Your task to perform on an android device: Open notification settings Image 0: 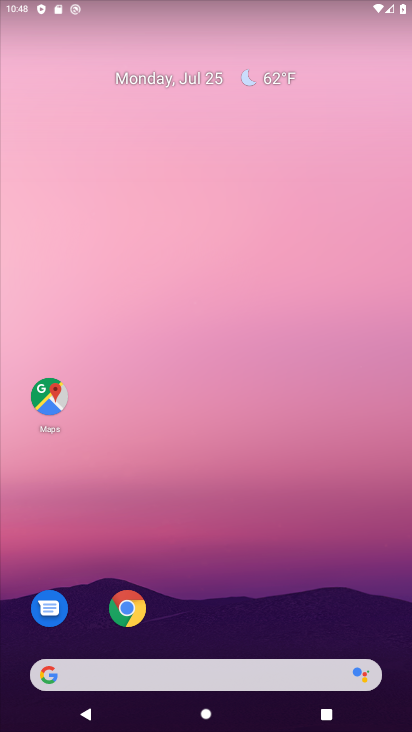
Step 0: drag from (255, 671) to (194, 313)
Your task to perform on an android device: Open notification settings Image 1: 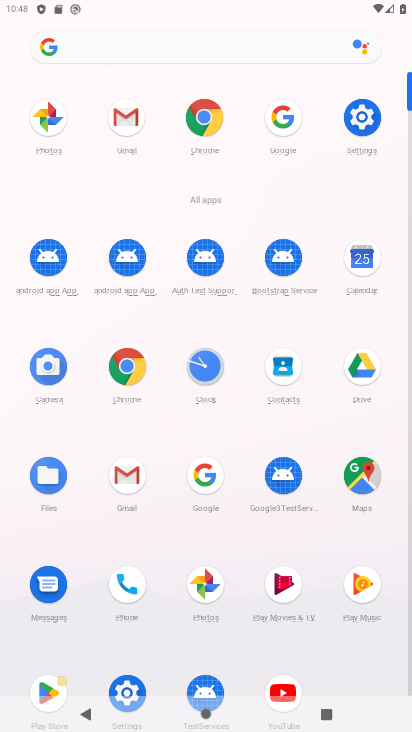
Step 1: click (369, 117)
Your task to perform on an android device: Open notification settings Image 2: 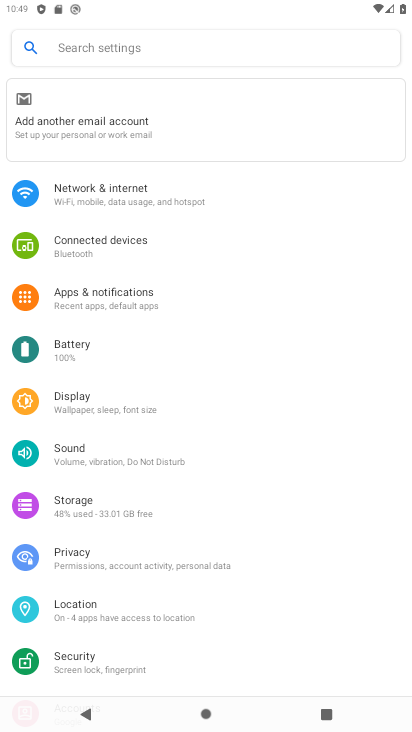
Step 2: click (85, 300)
Your task to perform on an android device: Open notification settings Image 3: 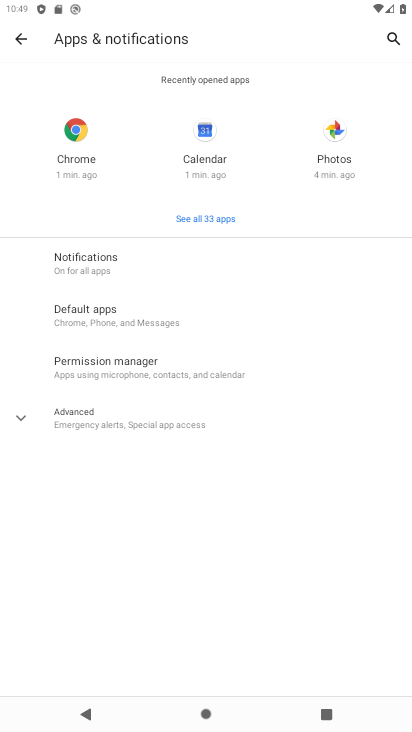
Step 3: click (92, 414)
Your task to perform on an android device: Open notification settings Image 4: 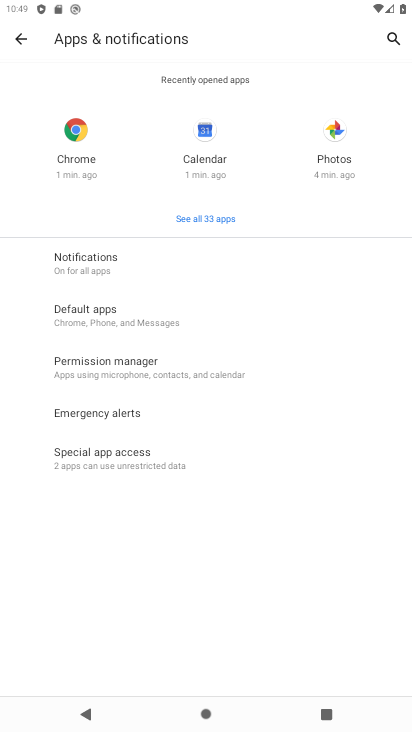
Step 4: click (80, 269)
Your task to perform on an android device: Open notification settings Image 5: 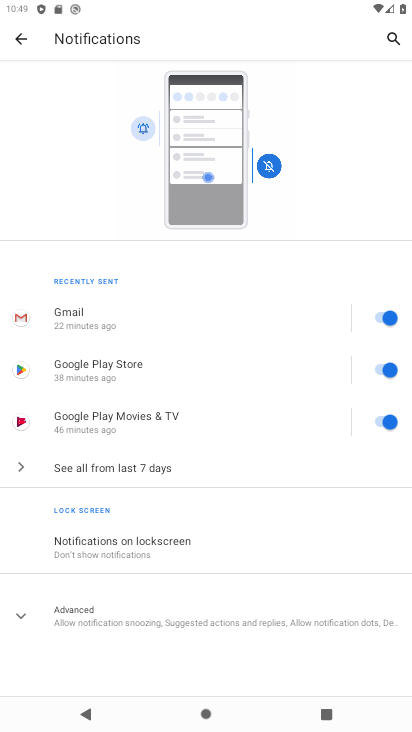
Step 5: click (78, 611)
Your task to perform on an android device: Open notification settings Image 6: 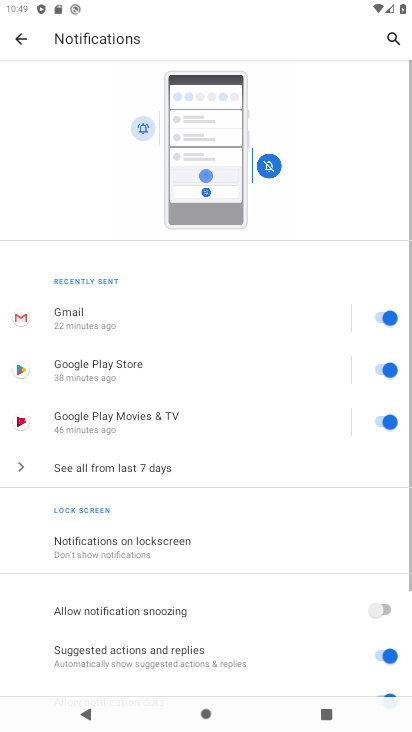
Step 6: task complete